Your task to perform on an android device: all mails in gmail Image 0: 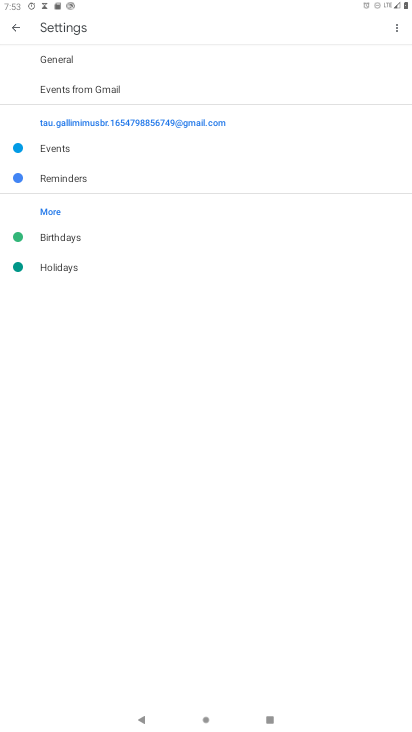
Step 0: press home button
Your task to perform on an android device: all mails in gmail Image 1: 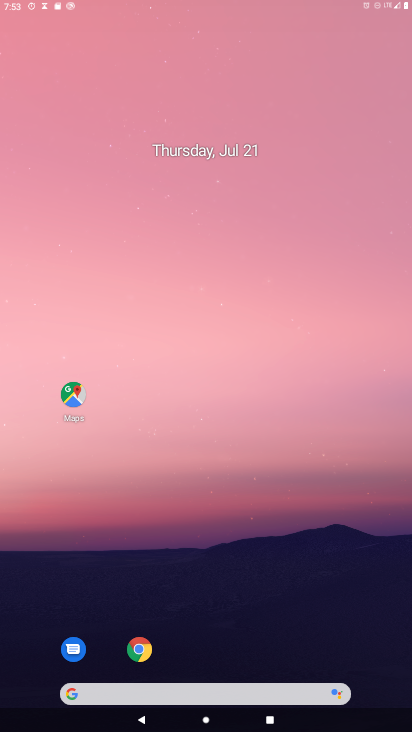
Step 1: drag from (360, 640) to (106, 18)
Your task to perform on an android device: all mails in gmail Image 2: 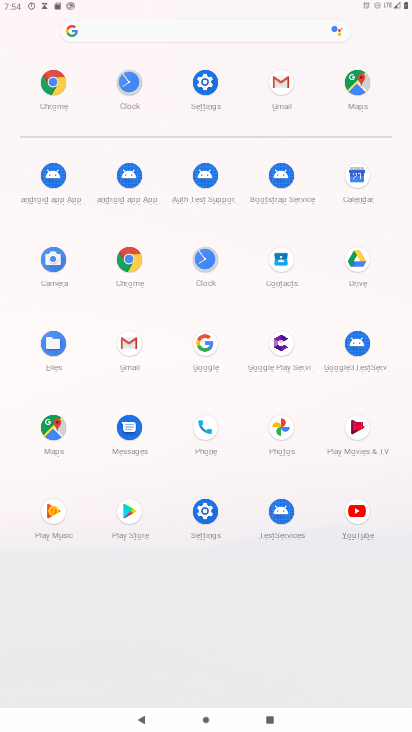
Step 2: click (116, 334)
Your task to perform on an android device: all mails in gmail Image 3: 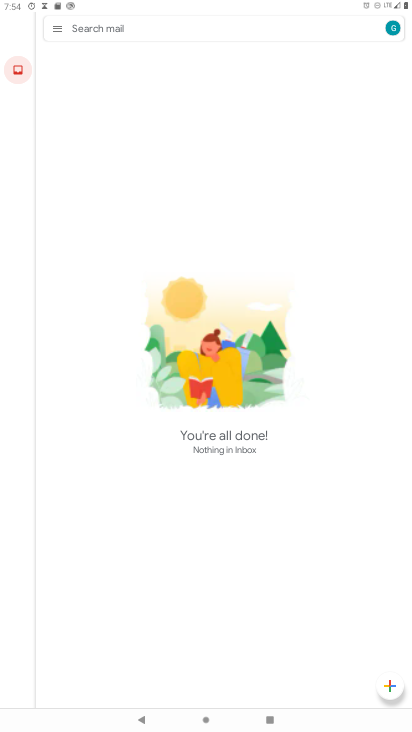
Step 3: click (56, 28)
Your task to perform on an android device: all mails in gmail Image 4: 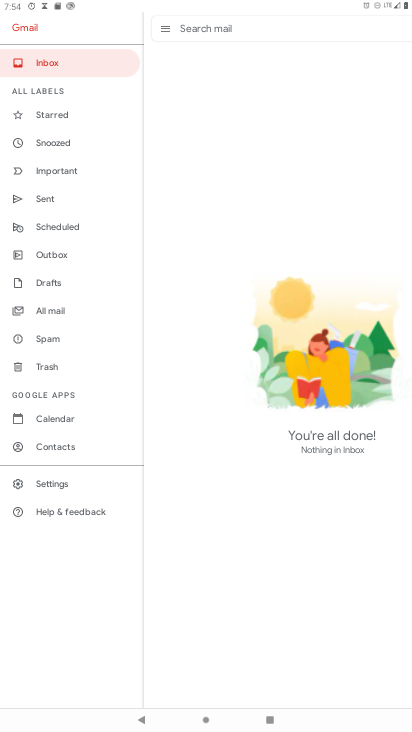
Step 4: click (65, 303)
Your task to perform on an android device: all mails in gmail Image 5: 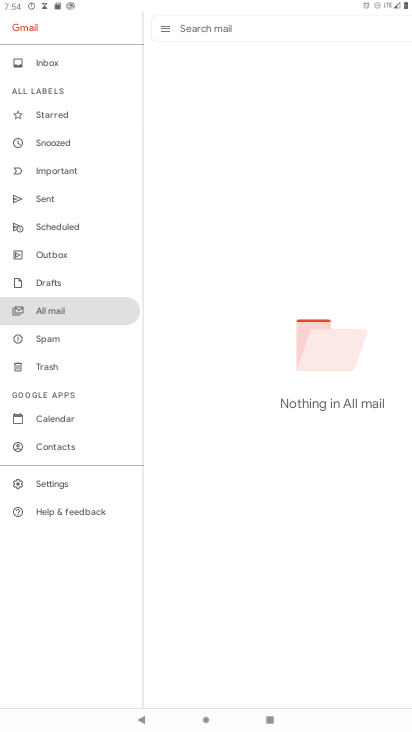
Step 5: task complete